Your task to perform on an android device: install app "Google Calendar" Image 0: 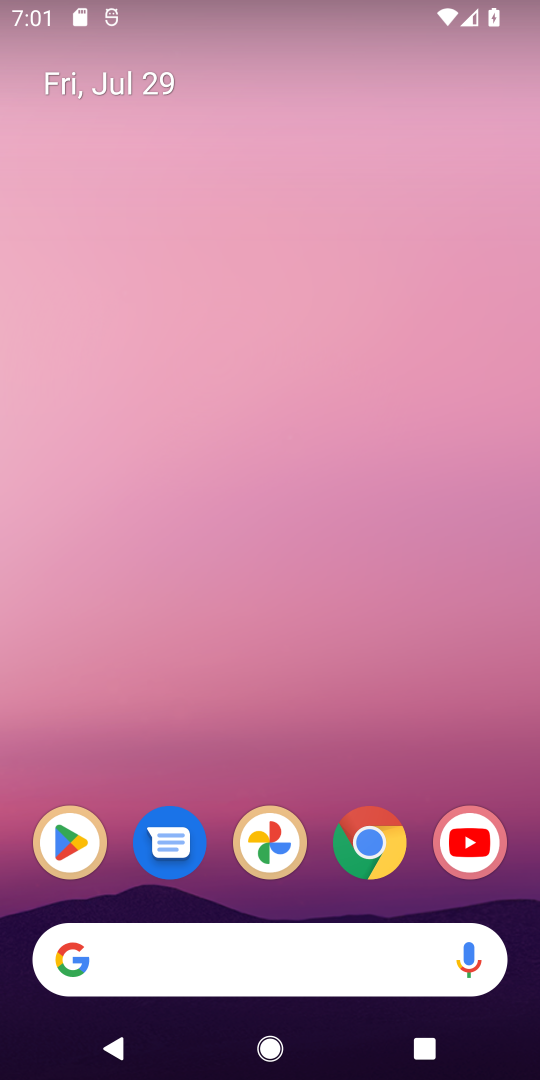
Step 0: drag from (366, 805) to (299, 322)
Your task to perform on an android device: install app "Google Calendar" Image 1: 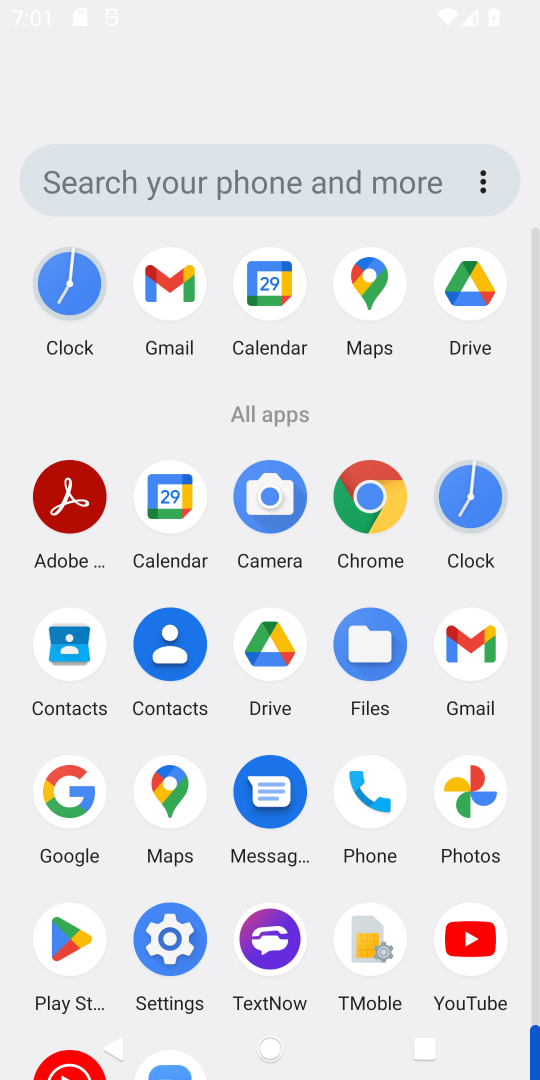
Step 1: drag from (421, 759) to (421, 222)
Your task to perform on an android device: install app "Google Calendar" Image 2: 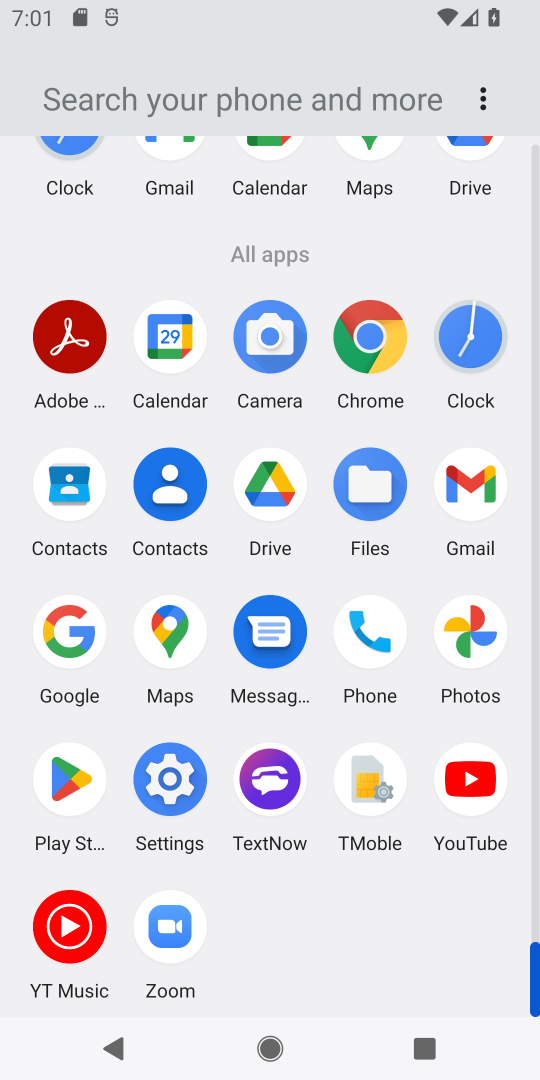
Step 2: drag from (319, 553) to (359, 847)
Your task to perform on an android device: install app "Google Calendar" Image 3: 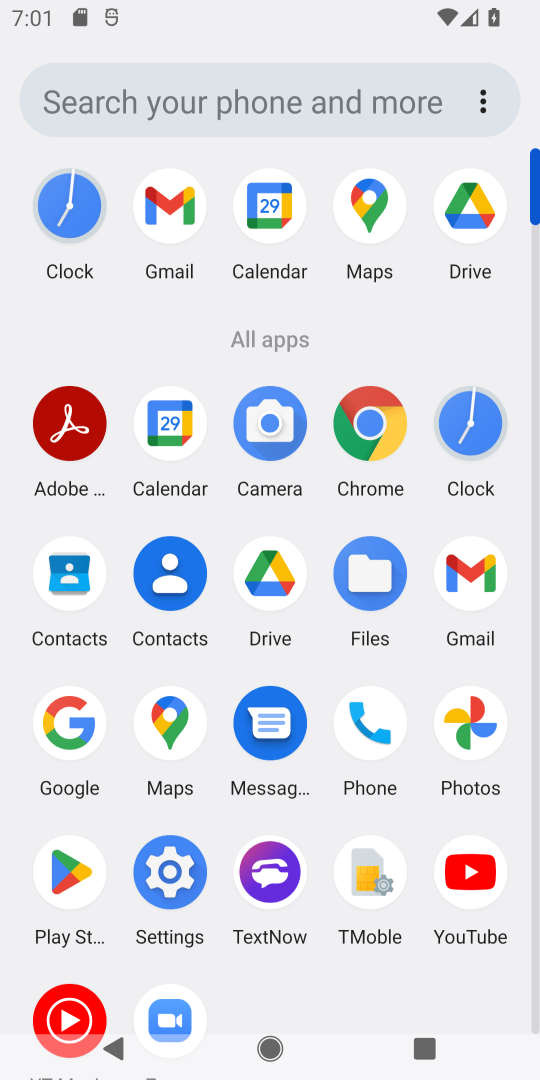
Step 3: drag from (318, 544) to (399, 841)
Your task to perform on an android device: install app "Google Calendar" Image 4: 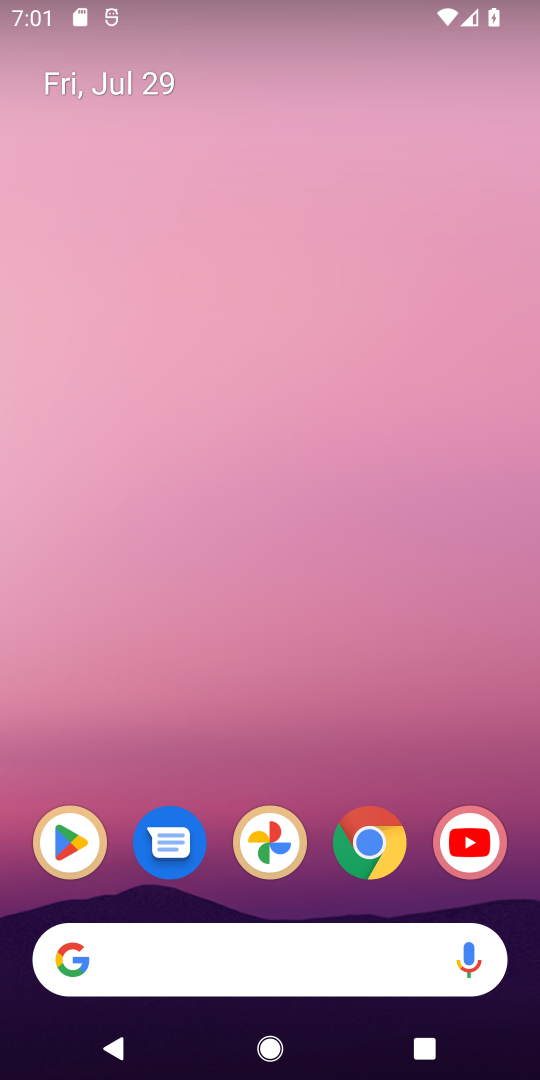
Step 4: drag from (295, 905) to (295, 414)
Your task to perform on an android device: install app "Google Calendar" Image 5: 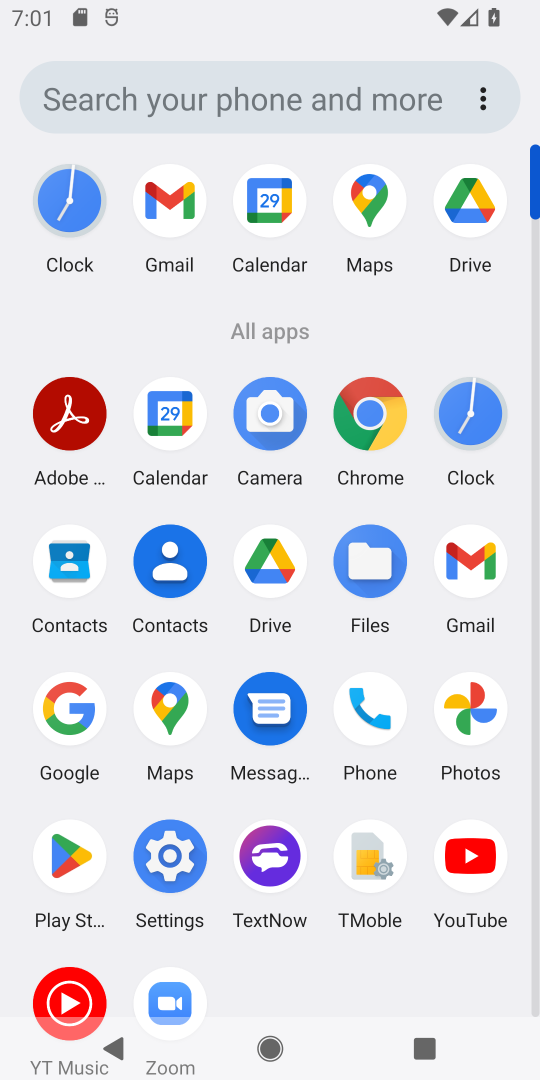
Step 5: drag from (339, 887) to (382, 492)
Your task to perform on an android device: install app "Google Calendar" Image 6: 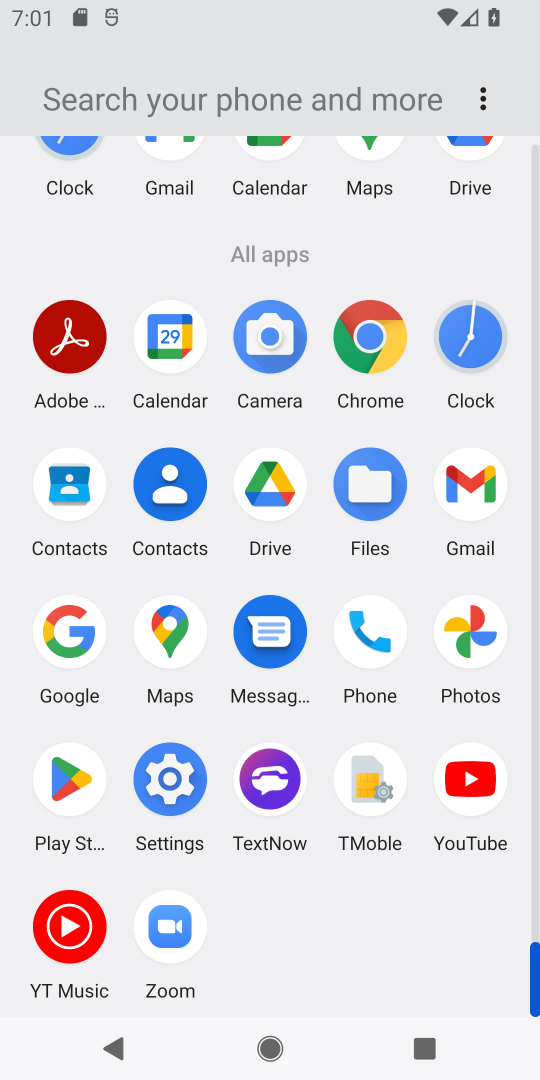
Step 6: drag from (260, 477) to (281, 927)
Your task to perform on an android device: install app "Google Calendar" Image 7: 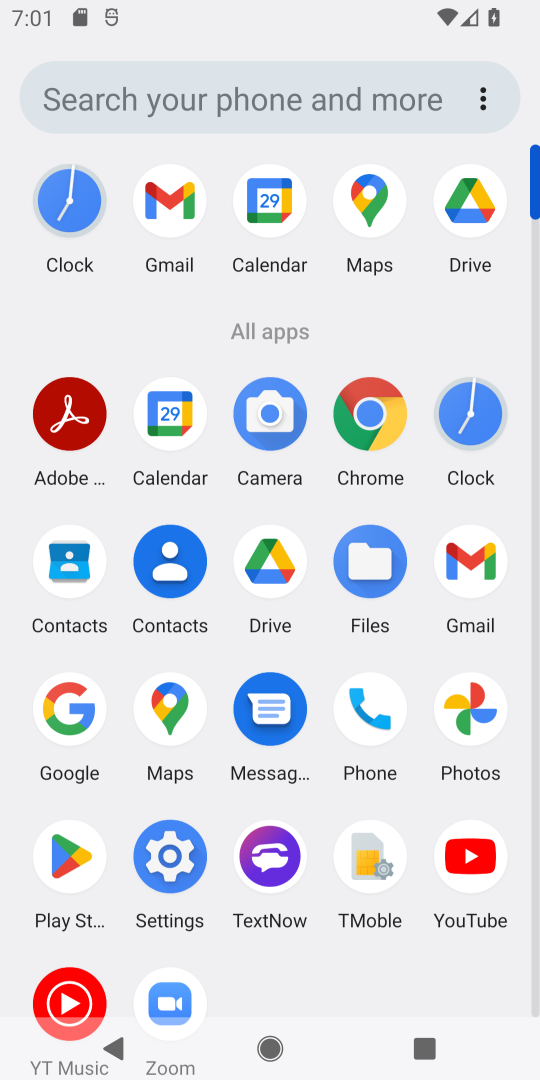
Step 7: drag from (245, 617) to (307, 879)
Your task to perform on an android device: install app "Google Calendar" Image 8: 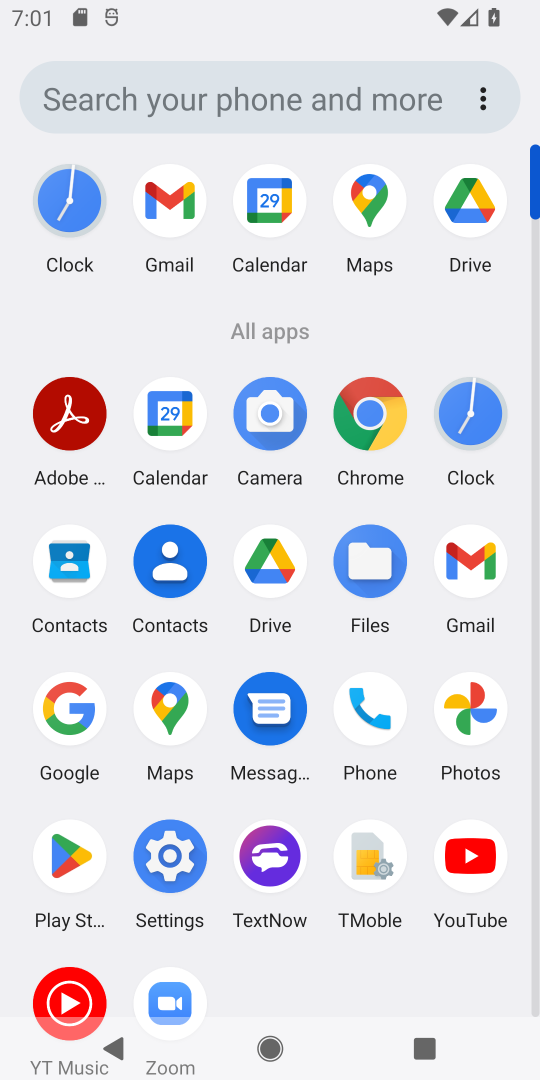
Step 8: press back button
Your task to perform on an android device: install app "Google Calendar" Image 9: 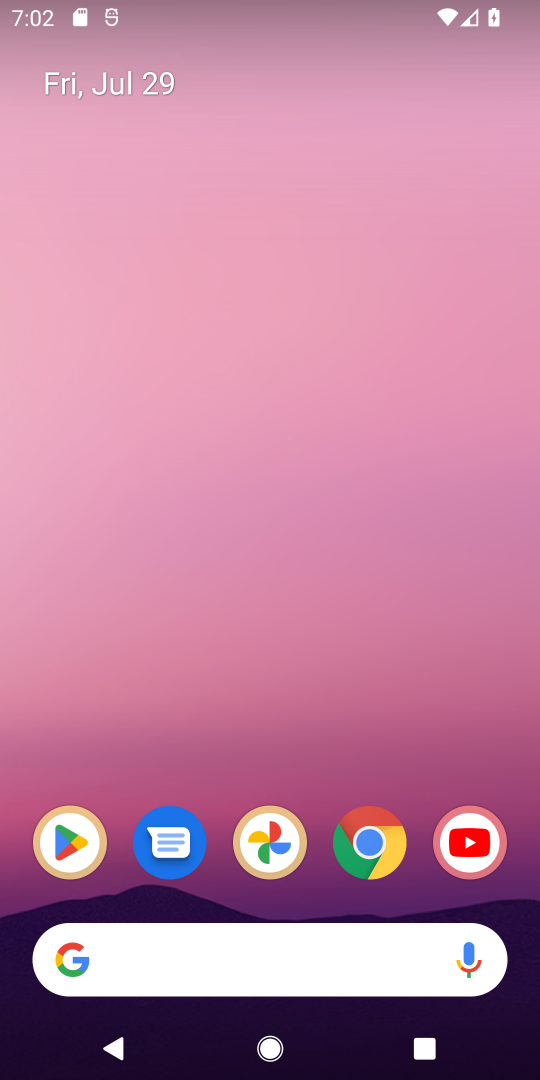
Step 9: drag from (326, 1039) to (278, 519)
Your task to perform on an android device: install app "Google Calendar" Image 10: 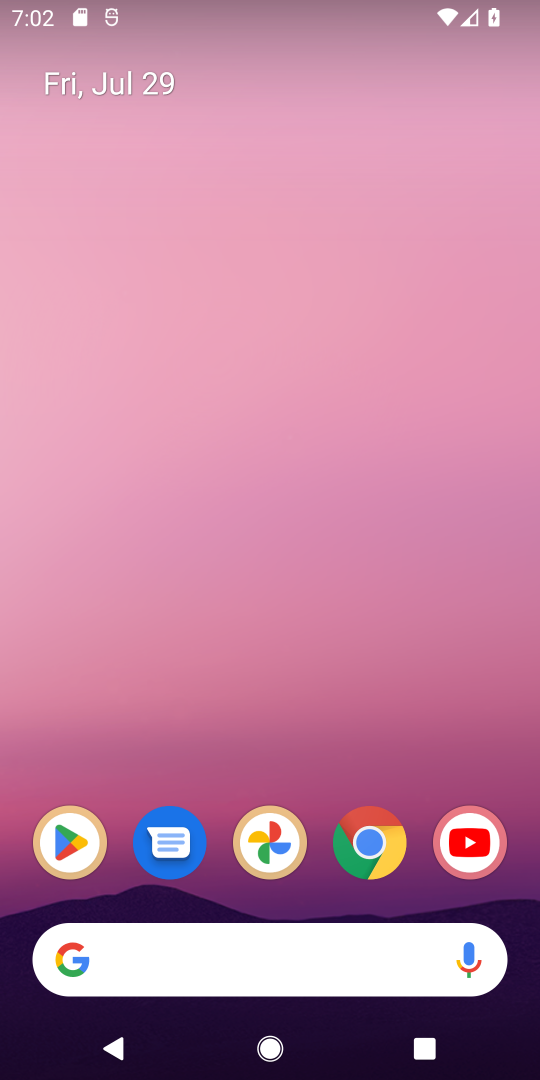
Step 10: drag from (268, 942) to (268, 373)
Your task to perform on an android device: install app "Google Calendar" Image 11: 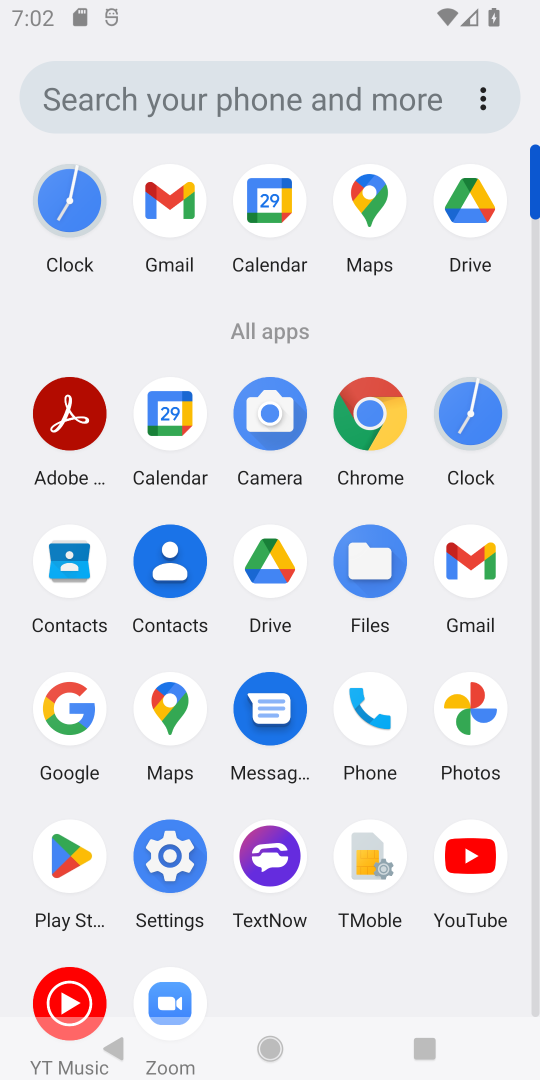
Step 11: drag from (363, 867) to (301, 366)
Your task to perform on an android device: install app "Google Calendar" Image 12: 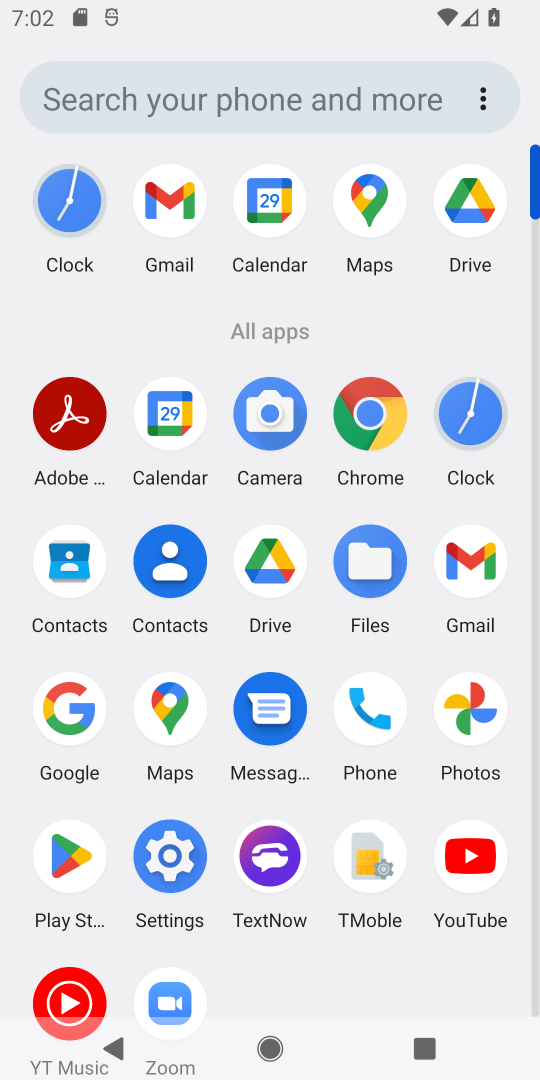
Step 12: click (265, 211)
Your task to perform on an android device: install app "Google Calendar" Image 13: 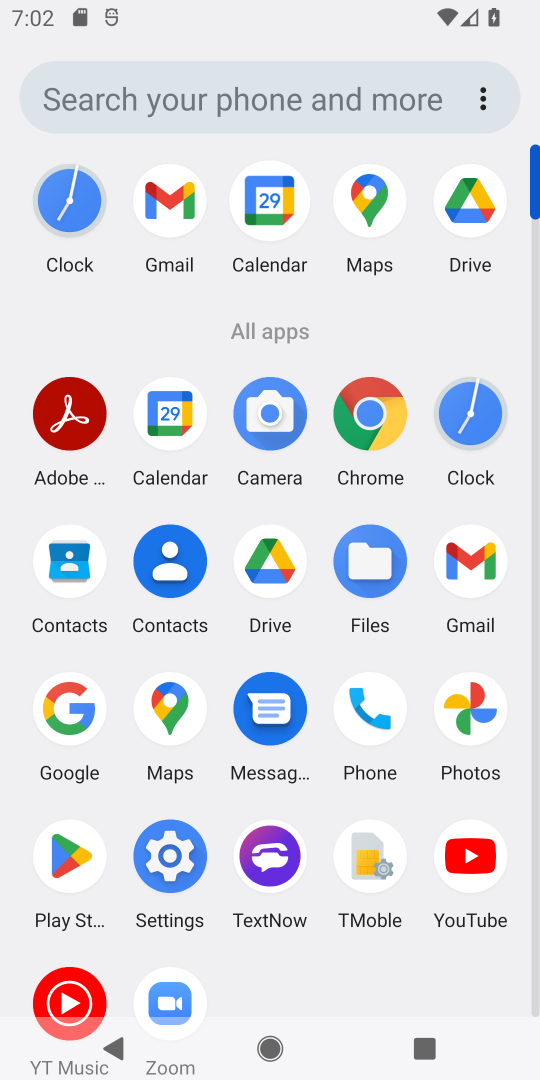
Step 13: click (269, 211)
Your task to perform on an android device: install app "Google Calendar" Image 14: 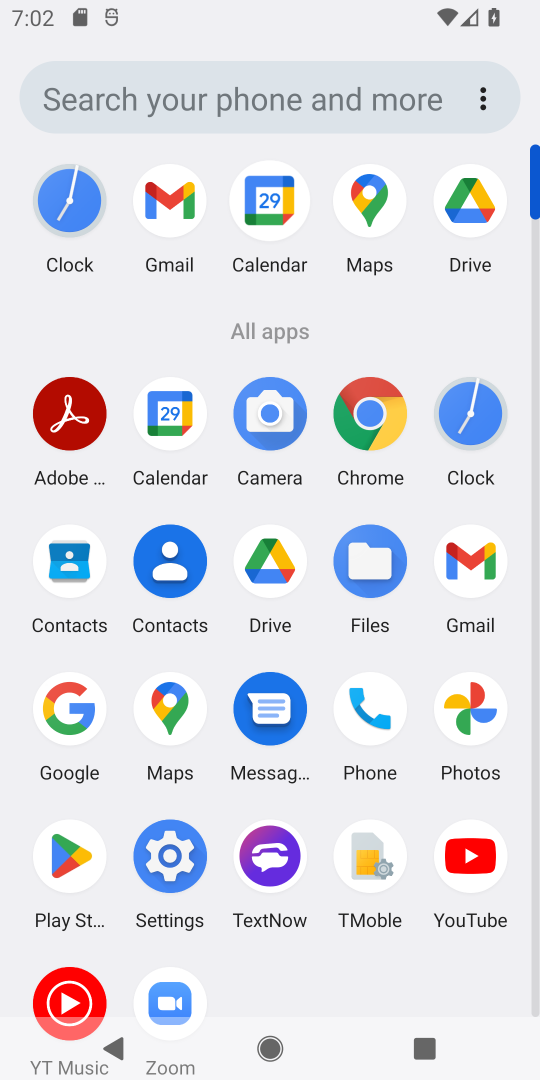
Step 14: click (269, 214)
Your task to perform on an android device: install app "Google Calendar" Image 15: 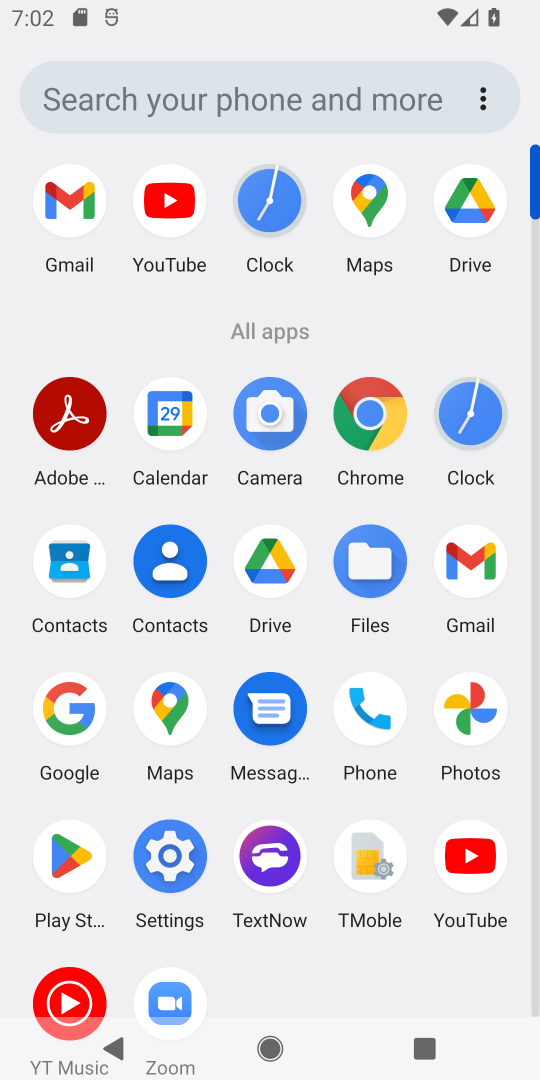
Step 15: click (266, 218)
Your task to perform on an android device: install app "Google Calendar" Image 16: 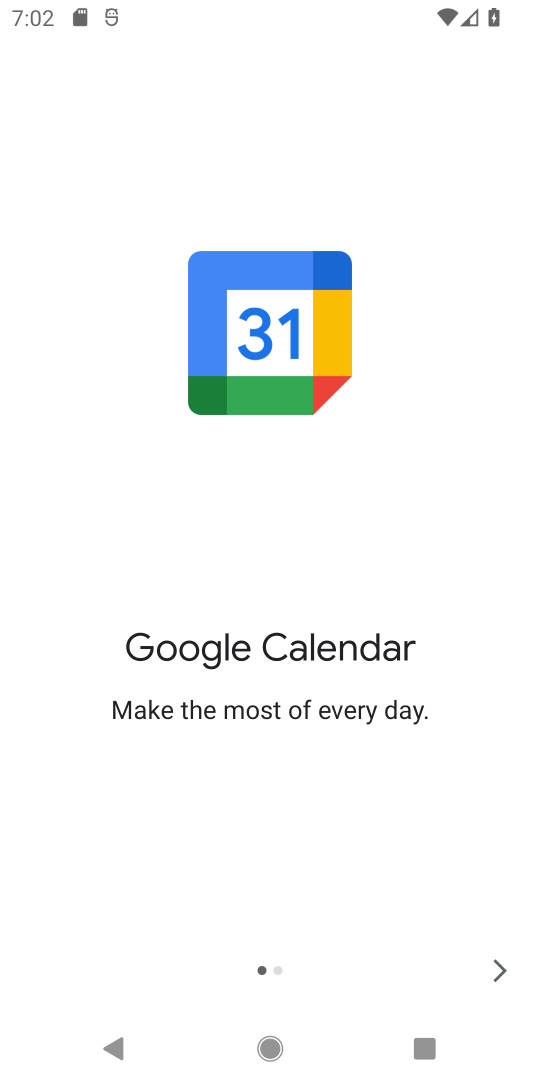
Step 16: task complete